Your task to perform on an android device: Open internet settings Image 0: 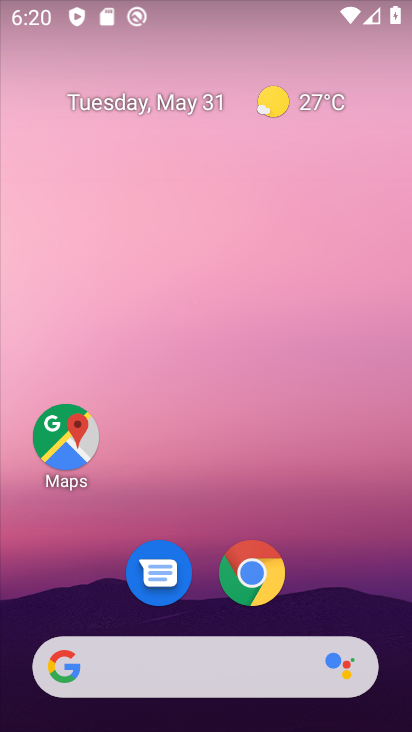
Step 0: drag from (402, 637) to (294, 58)
Your task to perform on an android device: Open internet settings Image 1: 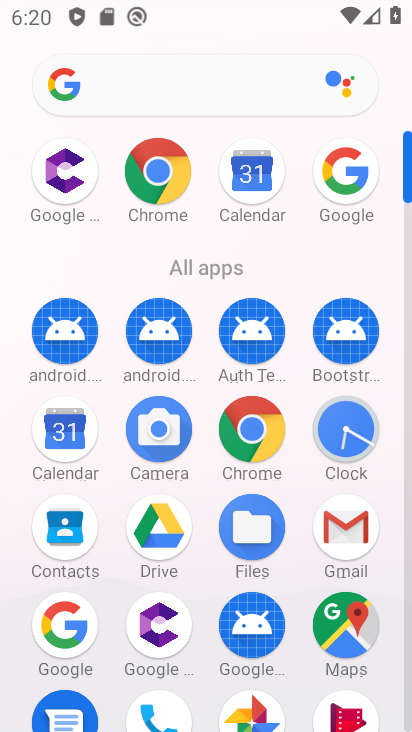
Step 1: drag from (149, 590) to (156, 181)
Your task to perform on an android device: Open internet settings Image 2: 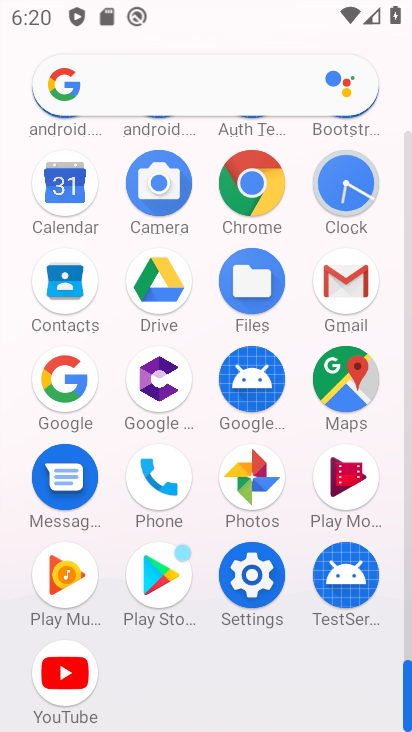
Step 2: click (247, 593)
Your task to perform on an android device: Open internet settings Image 3: 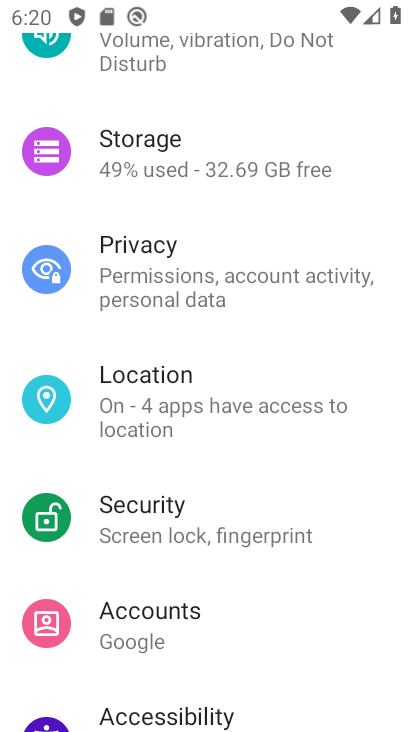
Step 3: drag from (218, 217) to (253, 544)
Your task to perform on an android device: Open internet settings Image 4: 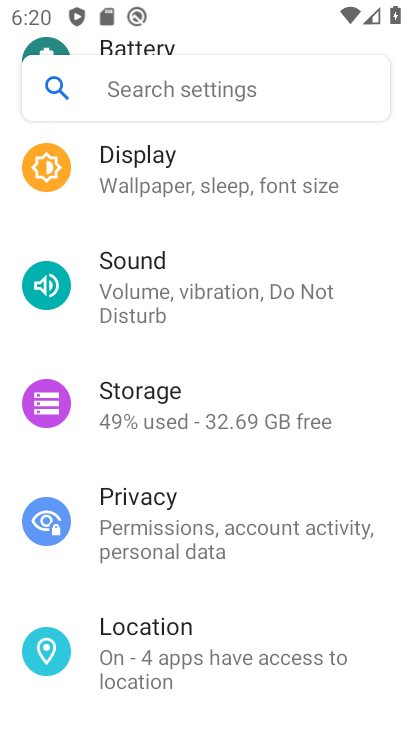
Step 4: drag from (190, 159) to (215, 671)
Your task to perform on an android device: Open internet settings Image 5: 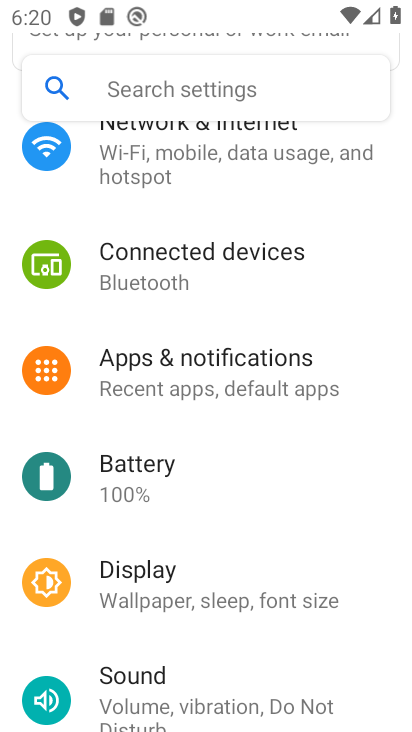
Step 5: drag from (133, 205) to (188, 550)
Your task to perform on an android device: Open internet settings Image 6: 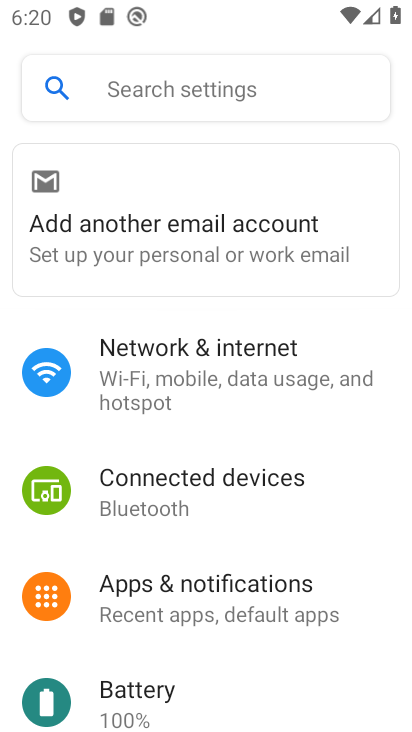
Step 6: click (159, 385)
Your task to perform on an android device: Open internet settings Image 7: 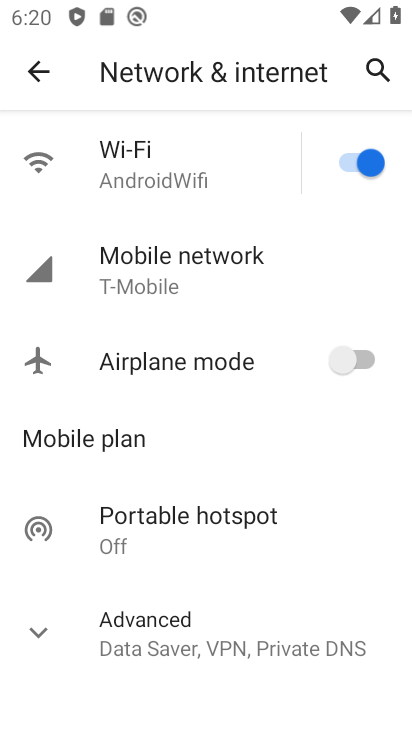
Step 7: task complete